Your task to perform on an android device: turn off notifications settings in the gmail app Image 0: 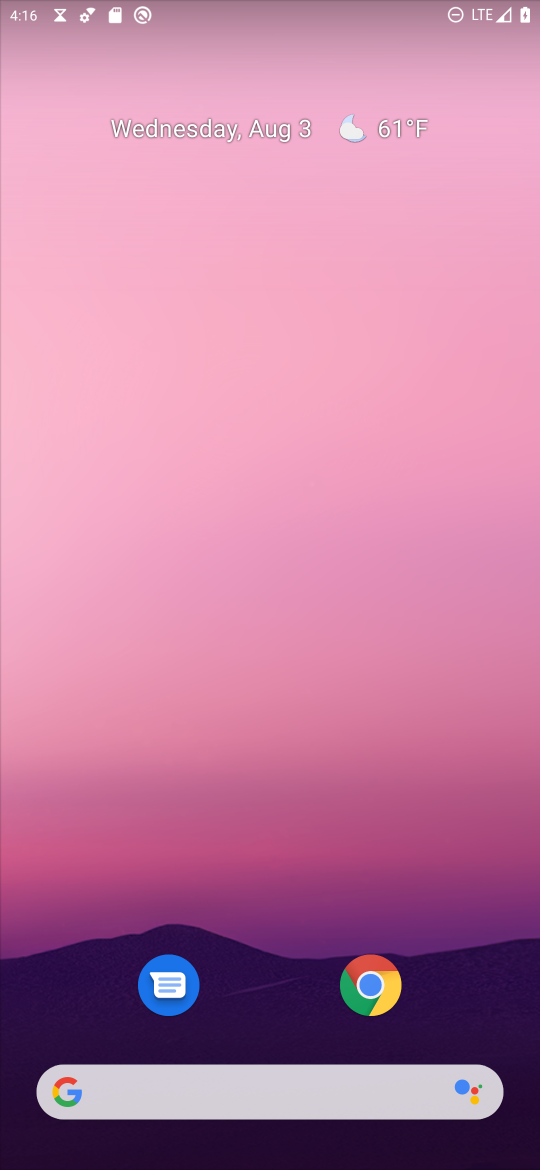
Step 0: drag from (282, 985) to (264, 341)
Your task to perform on an android device: turn off notifications settings in the gmail app Image 1: 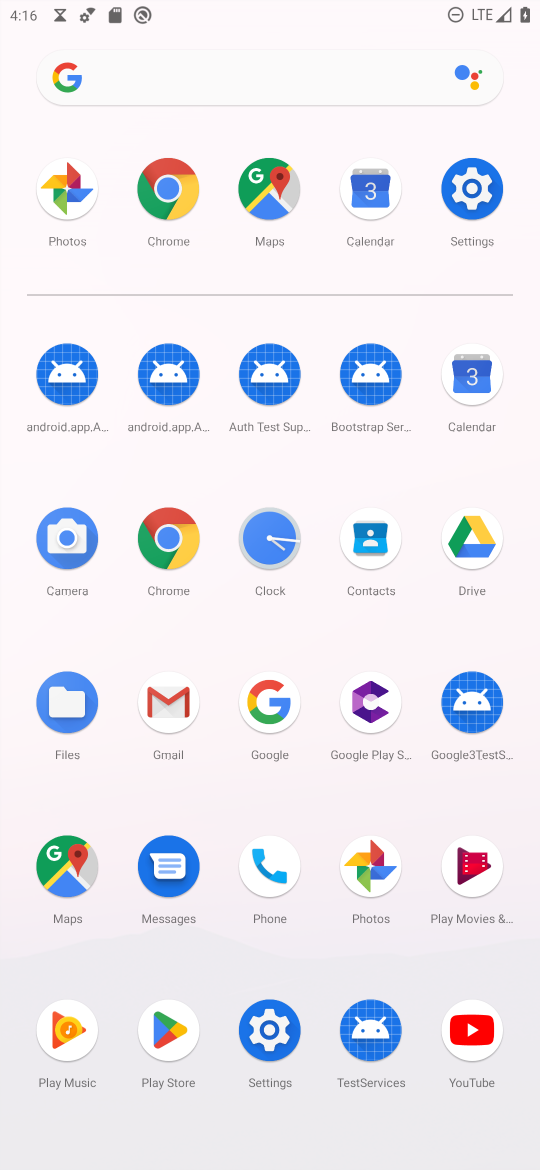
Step 1: click (162, 712)
Your task to perform on an android device: turn off notifications settings in the gmail app Image 2: 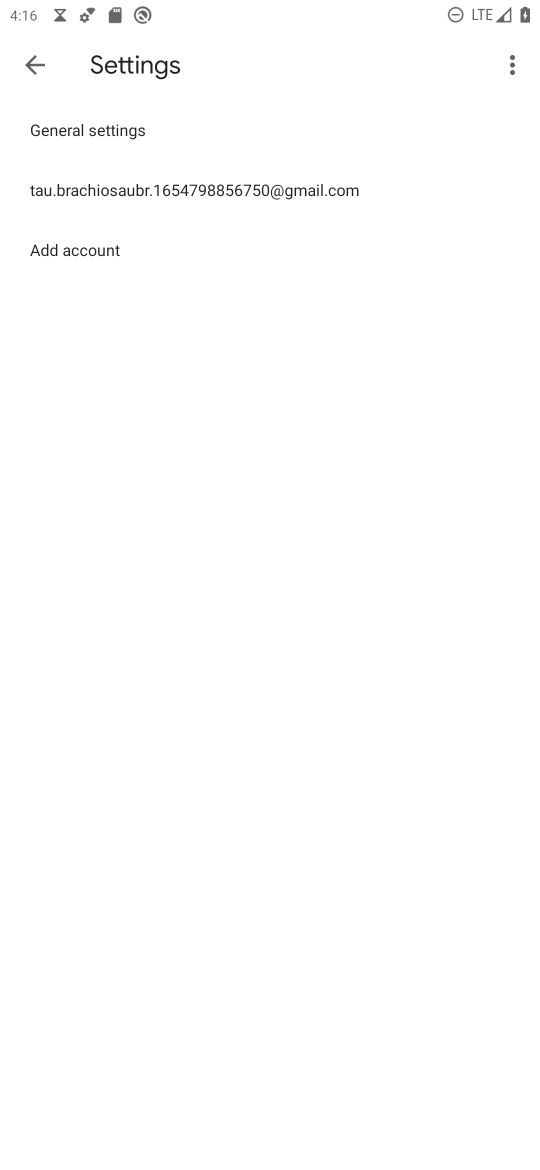
Step 2: click (286, 196)
Your task to perform on an android device: turn off notifications settings in the gmail app Image 3: 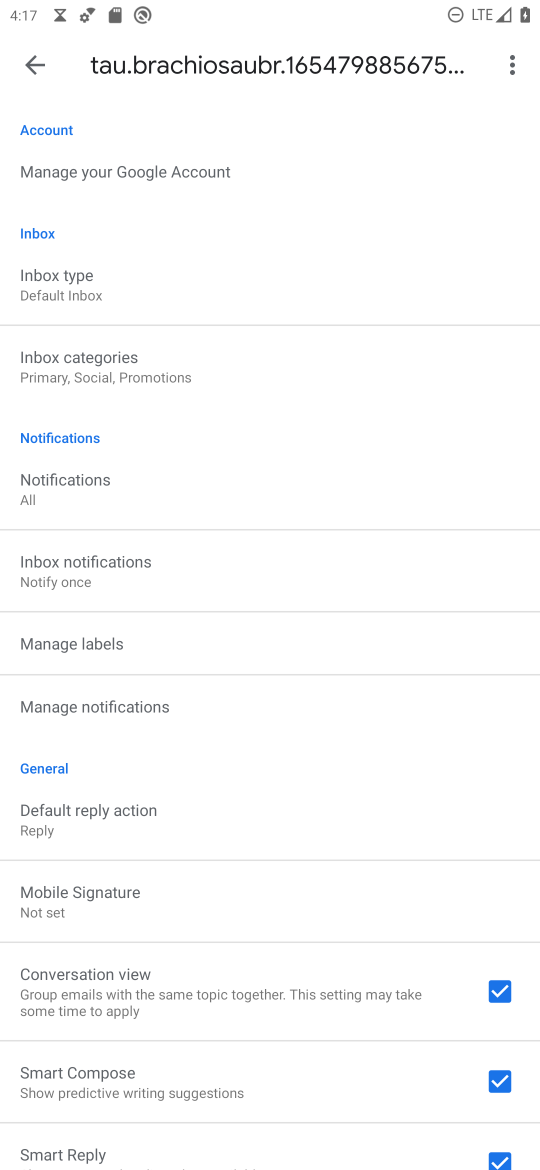
Step 3: click (95, 693)
Your task to perform on an android device: turn off notifications settings in the gmail app Image 4: 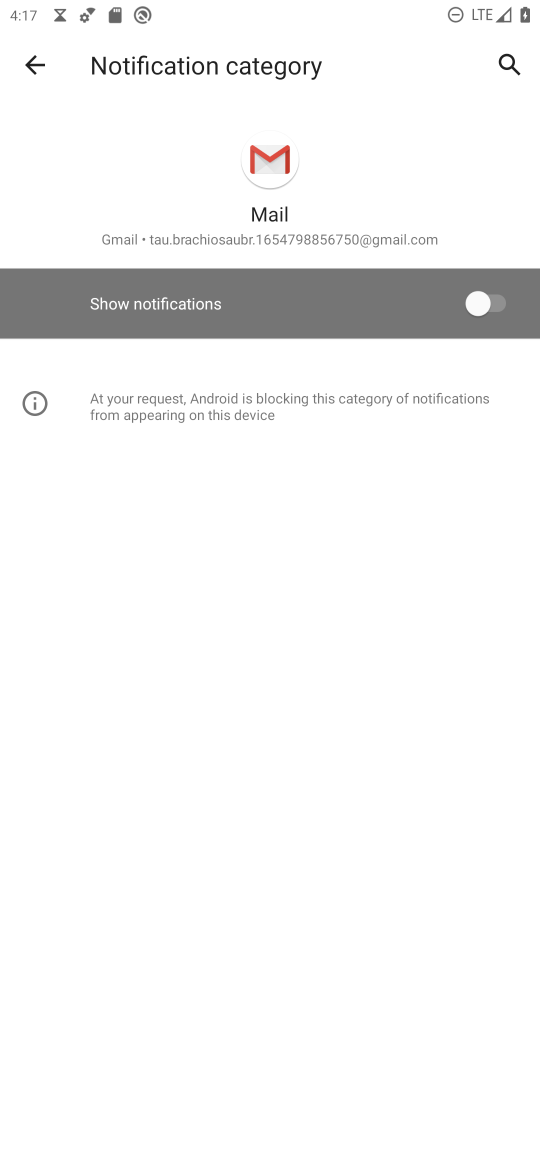
Step 4: task complete